Your task to perform on an android device: set default search engine in the chrome app Image 0: 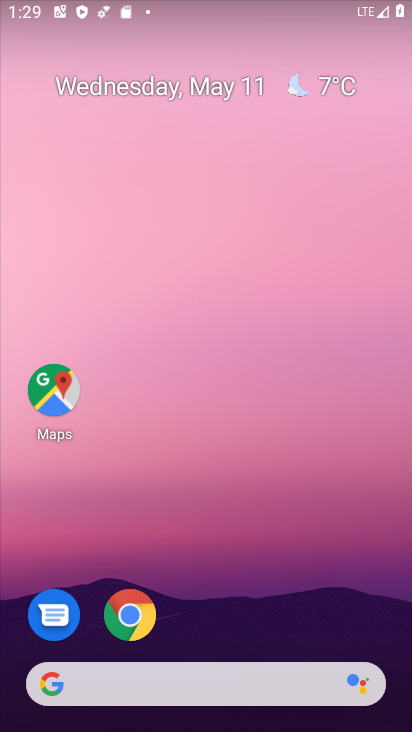
Step 0: click (131, 619)
Your task to perform on an android device: set default search engine in the chrome app Image 1: 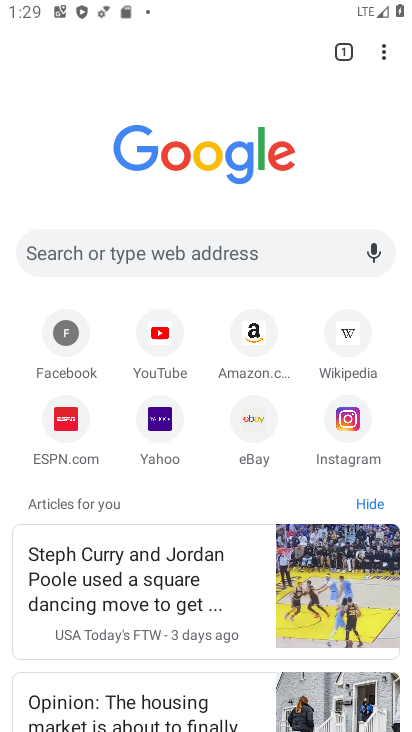
Step 1: drag from (383, 52) to (230, 443)
Your task to perform on an android device: set default search engine in the chrome app Image 2: 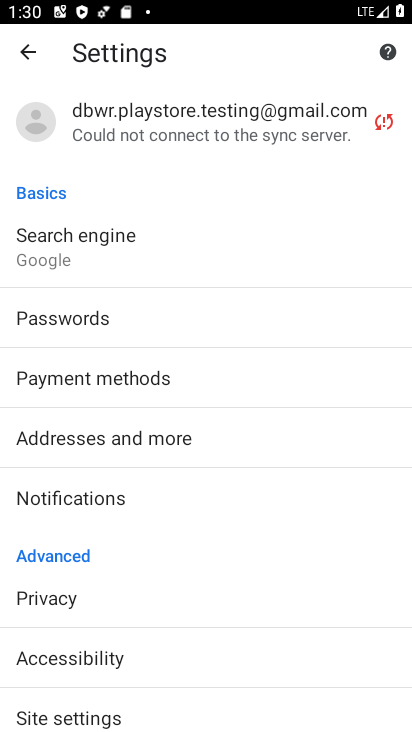
Step 2: drag from (230, 444) to (359, 544)
Your task to perform on an android device: set default search engine in the chrome app Image 3: 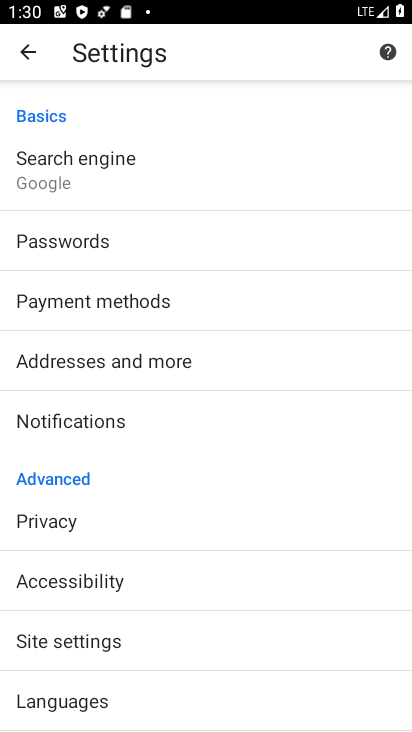
Step 3: click (114, 184)
Your task to perform on an android device: set default search engine in the chrome app Image 4: 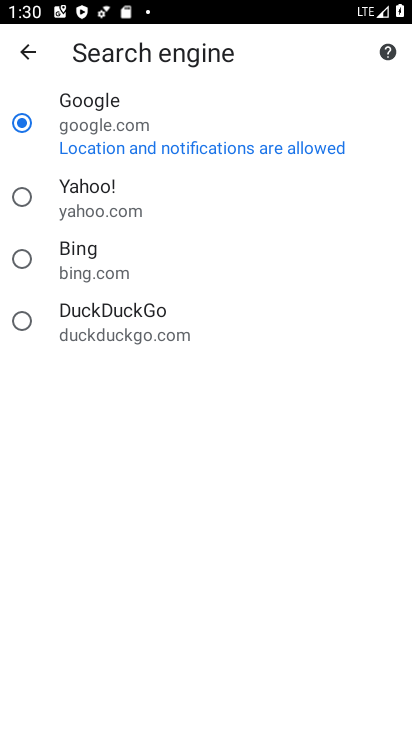
Step 4: task complete